Your task to perform on an android device: allow notifications from all sites in the chrome app Image 0: 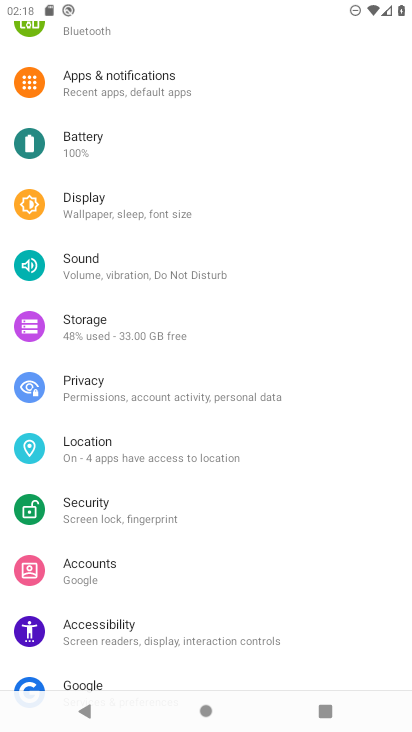
Step 0: click (155, 95)
Your task to perform on an android device: allow notifications from all sites in the chrome app Image 1: 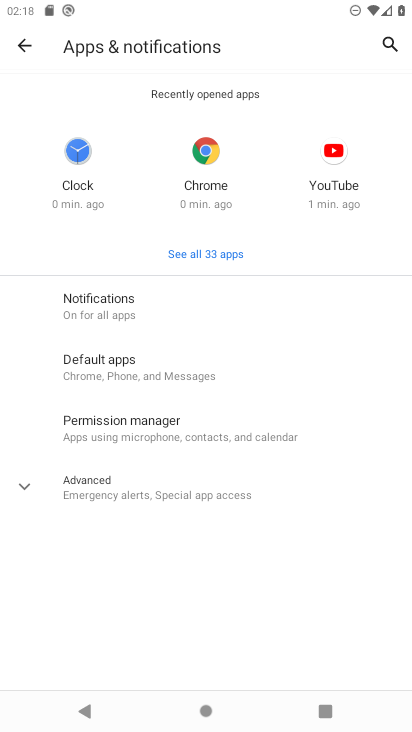
Step 1: click (198, 146)
Your task to perform on an android device: allow notifications from all sites in the chrome app Image 2: 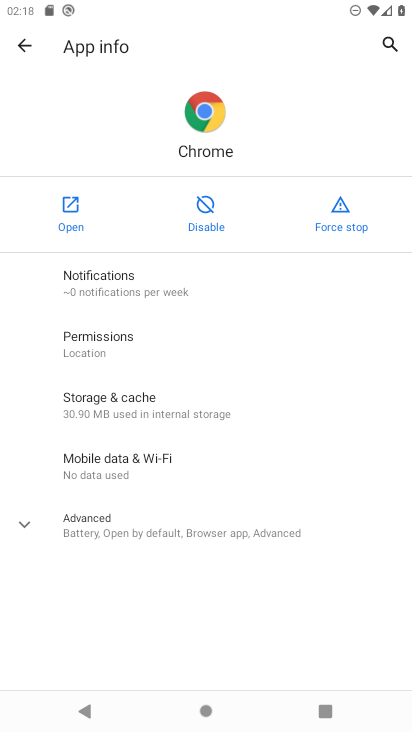
Step 2: click (140, 268)
Your task to perform on an android device: allow notifications from all sites in the chrome app Image 3: 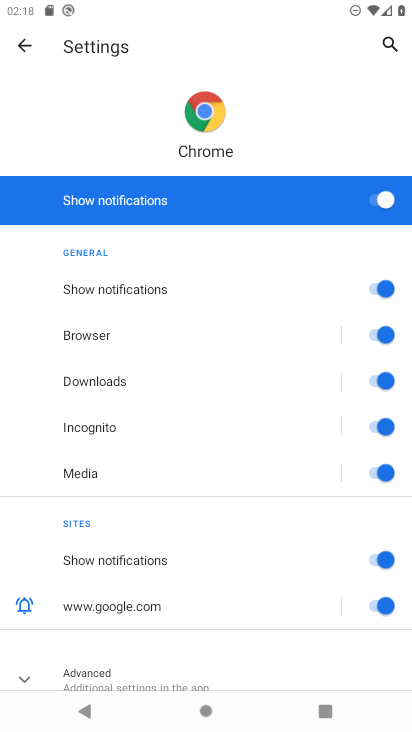
Step 3: drag from (103, 673) to (187, 231)
Your task to perform on an android device: allow notifications from all sites in the chrome app Image 4: 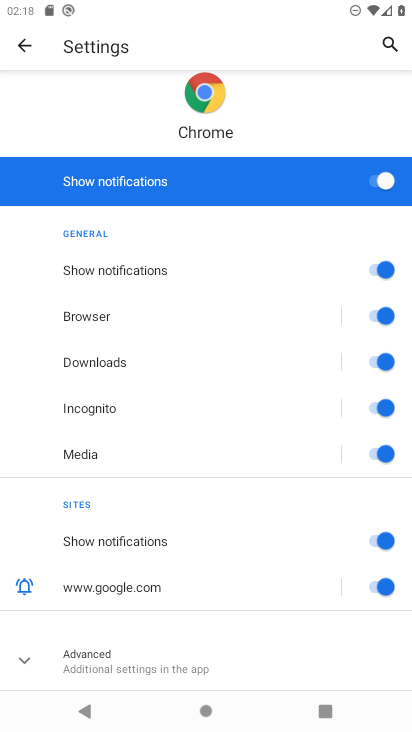
Step 4: click (150, 647)
Your task to perform on an android device: allow notifications from all sites in the chrome app Image 5: 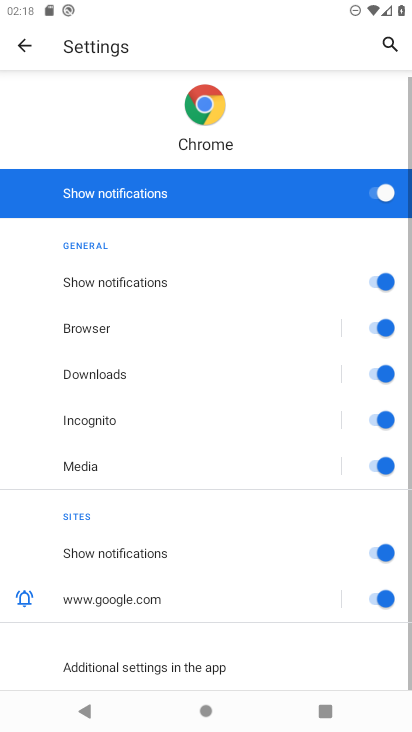
Step 5: task complete